Your task to perform on an android device: set the stopwatch Image 0: 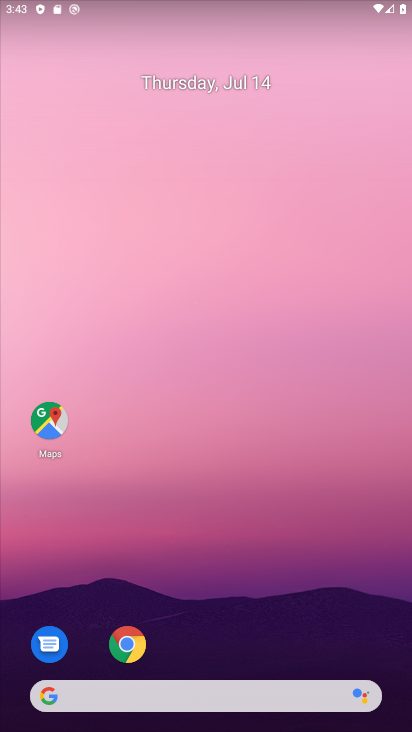
Step 0: drag from (223, 611) to (210, 12)
Your task to perform on an android device: set the stopwatch Image 1: 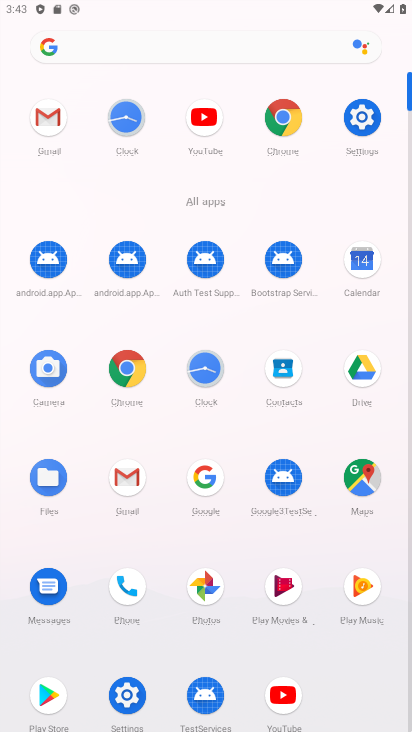
Step 1: click (194, 379)
Your task to perform on an android device: set the stopwatch Image 2: 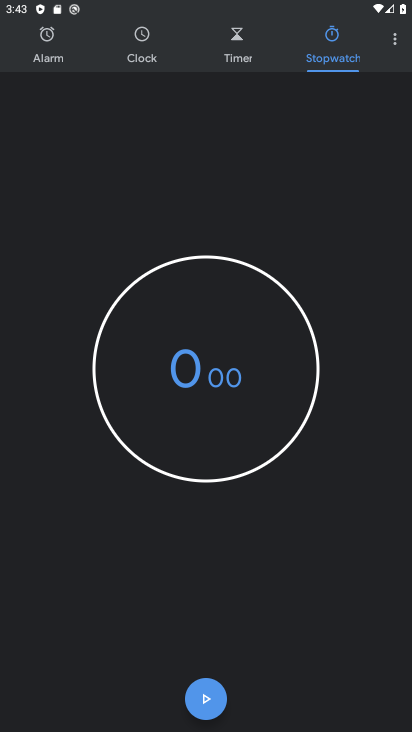
Step 2: click (242, 387)
Your task to perform on an android device: set the stopwatch Image 3: 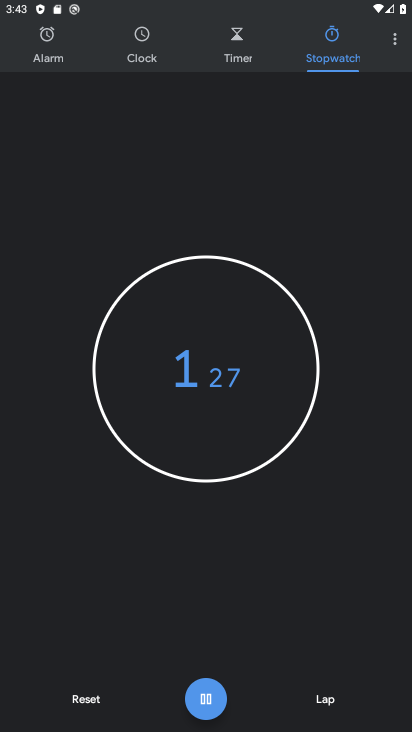
Step 3: click (242, 387)
Your task to perform on an android device: set the stopwatch Image 4: 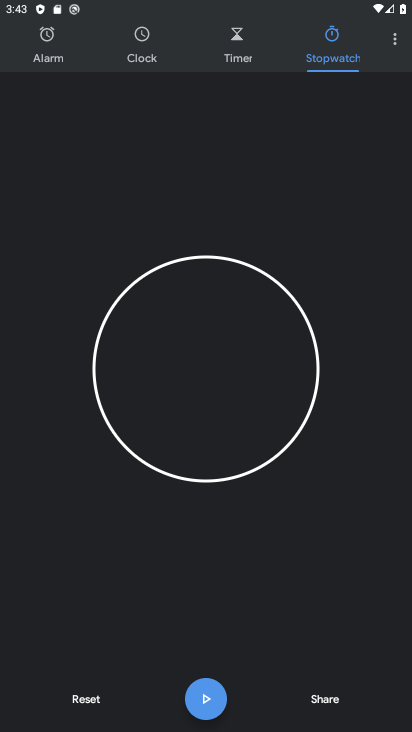
Step 4: task complete